Your task to perform on an android device: Open sound settings Image 0: 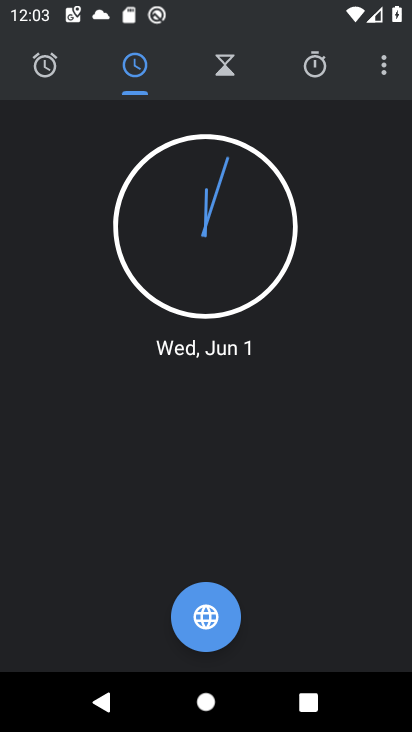
Step 0: press home button
Your task to perform on an android device: Open sound settings Image 1: 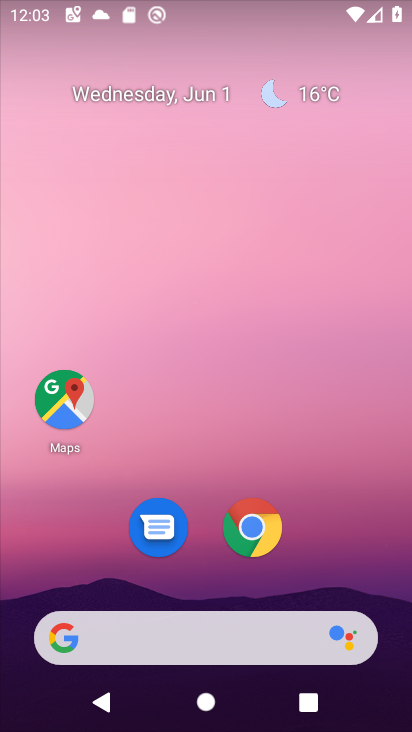
Step 1: drag from (376, 516) to (363, 2)
Your task to perform on an android device: Open sound settings Image 2: 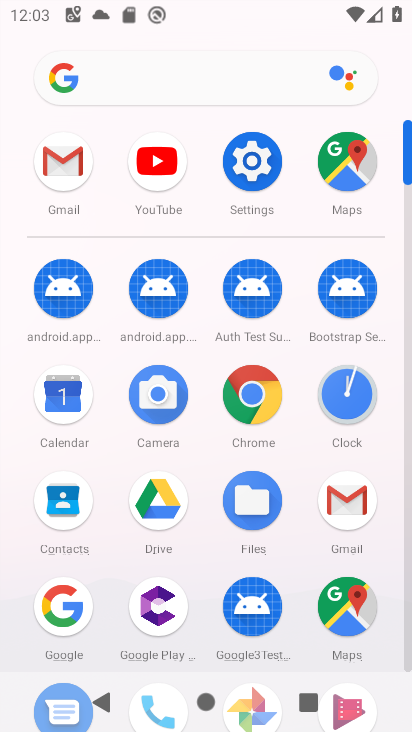
Step 2: click (258, 210)
Your task to perform on an android device: Open sound settings Image 3: 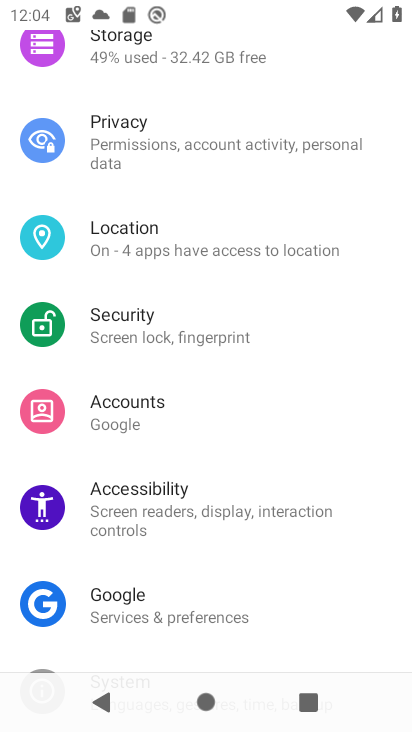
Step 3: drag from (243, 234) to (219, 506)
Your task to perform on an android device: Open sound settings Image 4: 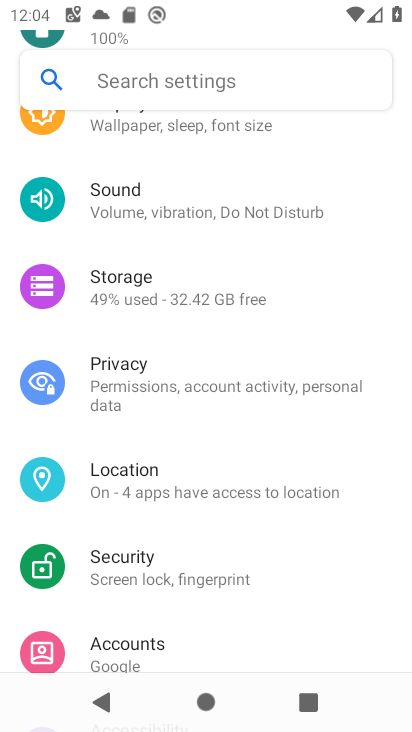
Step 4: click (103, 217)
Your task to perform on an android device: Open sound settings Image 5: 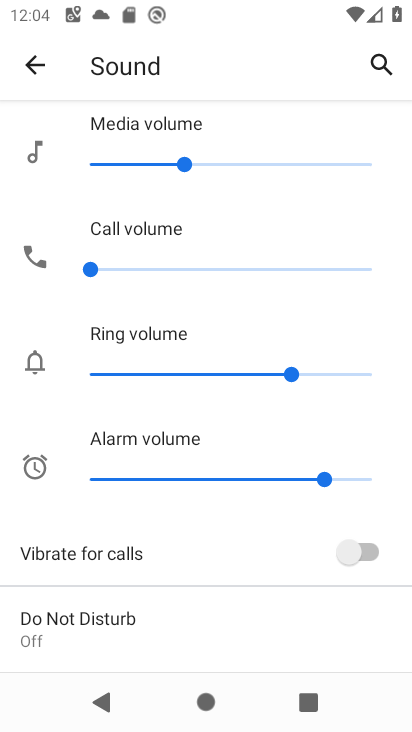
Step 5: task complete